Your task to perform on an android device: Open Chrome and go to settings Image 0: 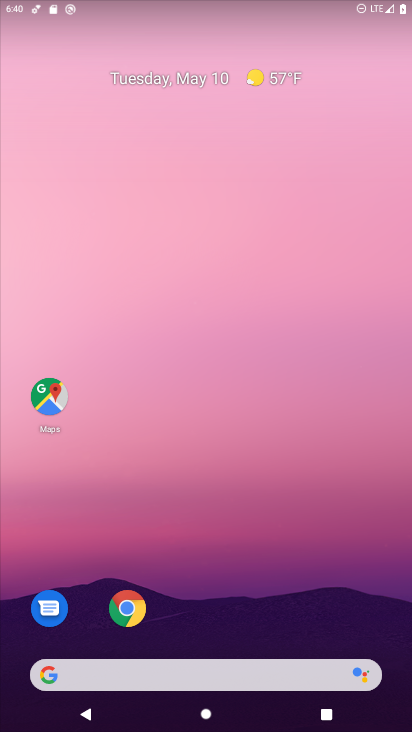
Step 0: drag from (299, 614) to (294, 7)
Your task to perform on an android device: Open Chrome and go to settings Image 1: 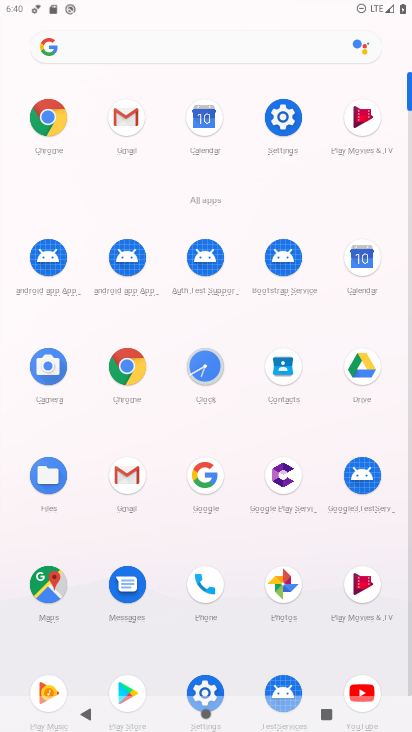
Step 1: click (45, 115)
Your task to perform on an android device: Open Chrome and go to settings Image 2: 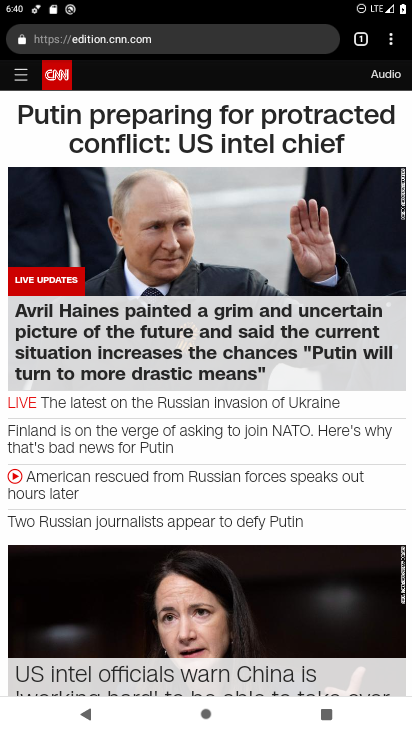
Step 2: press back button
Your task to perform on an android device: Open Chrome and go to settings Image 3: 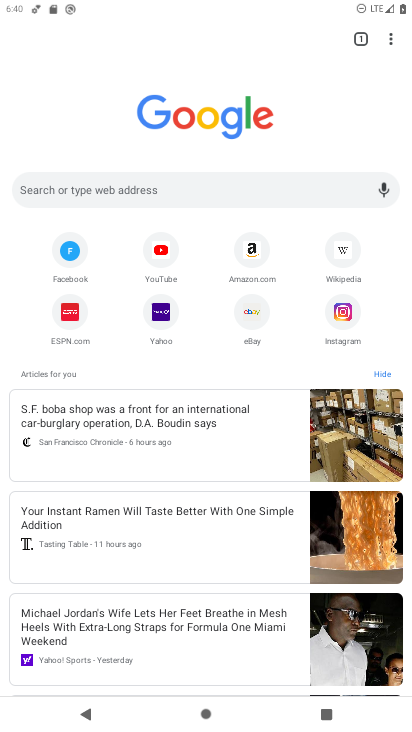
Step 3: click (389, 37)
Your task to perform on an android device: Open Chrome and go to settings Image 4: 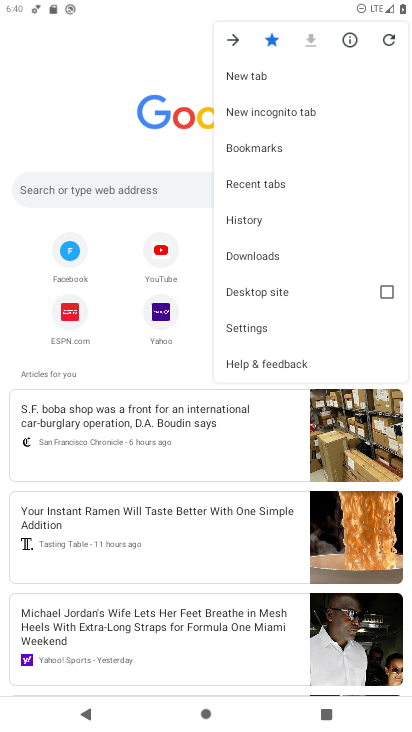
Step 4: click (274, 335)
Your task to perform on an android device: Open Chrome and go to settings Image 5: 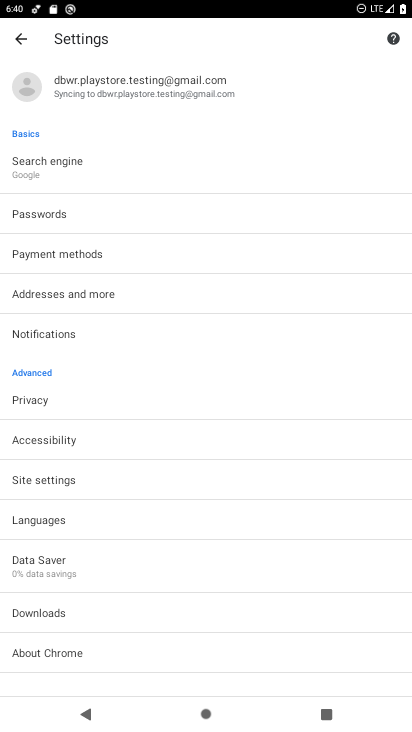
Step 5: task complete